Your task to perform on an android device: open sync settings in chrome Image 0: 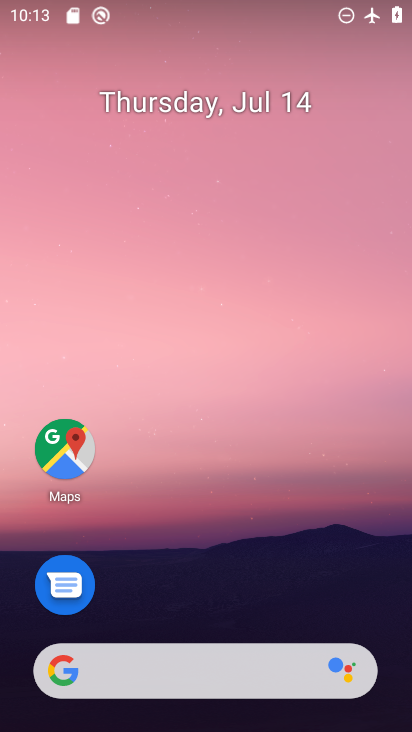
Step 0: drag from (220, 604) to (260, 108)
Your task to perform on an android device: open sync settings in chrome Image 1: 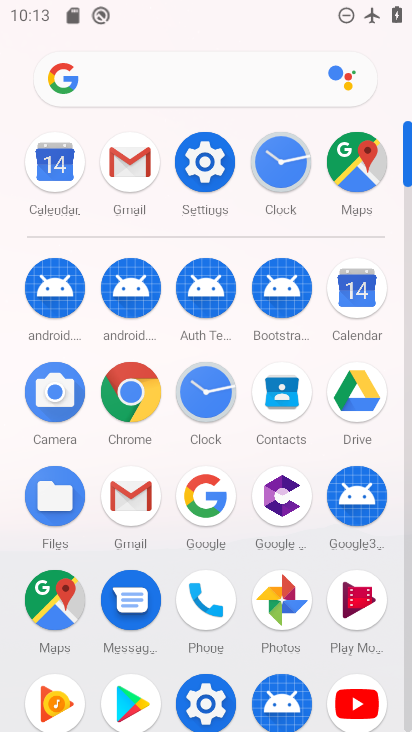
Step 1: click (132, 429)
Your task to perform on an android device: open sync settings in chrome Image 2: 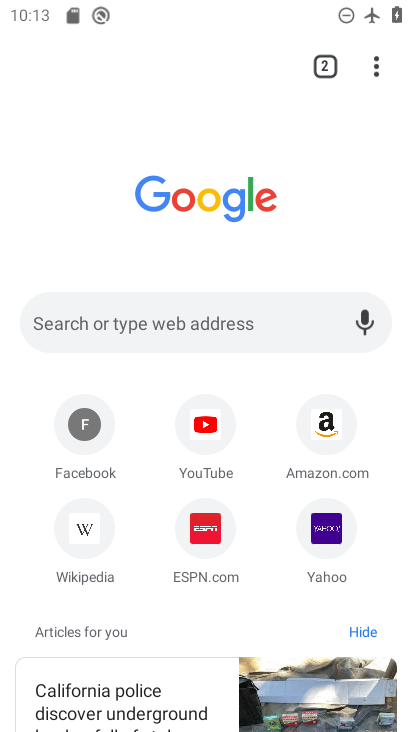
Step 2: click (381, 71)
Your task to perform on an android device: open sync settings in chrome Image 3: 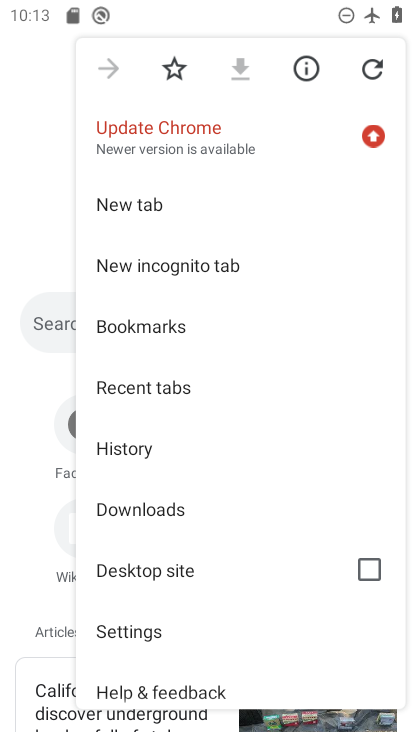
Step 3: click (164, 637)
Your task to perform on an android device: open sync settings in chrome Image 4: 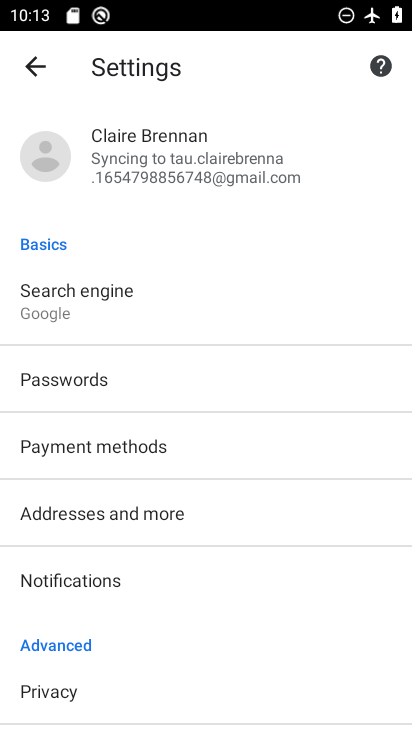
Step 4: click (102, 162)
Your task to perform on an android device: open sync settings in chrome Image 5: 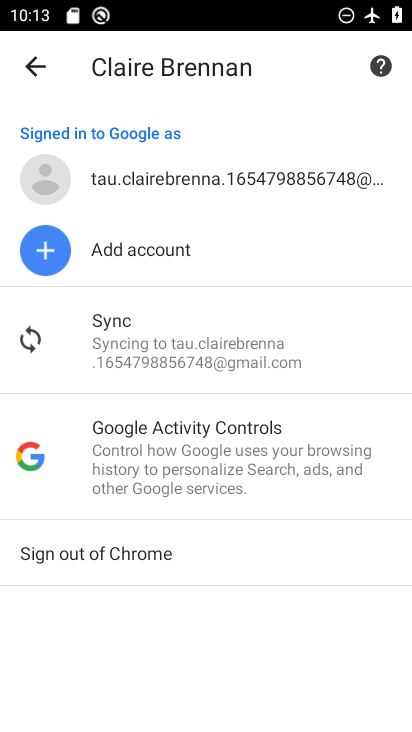
Step 5: click (137, 305)
Your task to perform on an android device: open sync settings in chrome Image 6: 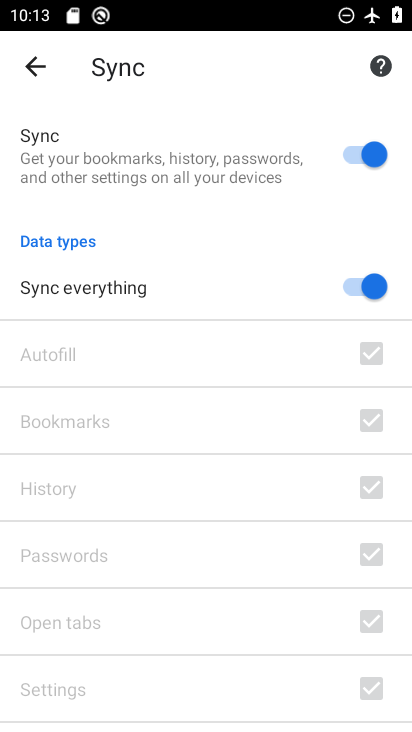
Step 6: task complete